Your task to perform on an android device: install app "Upside-Cash back on gas & food" Image 0: 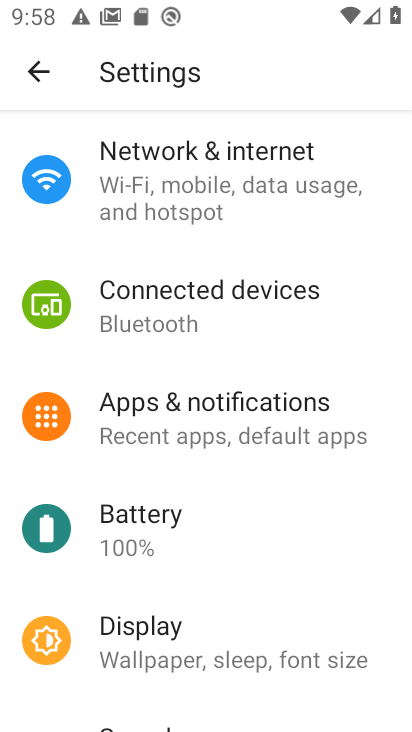
Step 0: press home button
Your task to perform on an android device: install app "Upside-Cash back on gas & food" Image 1: 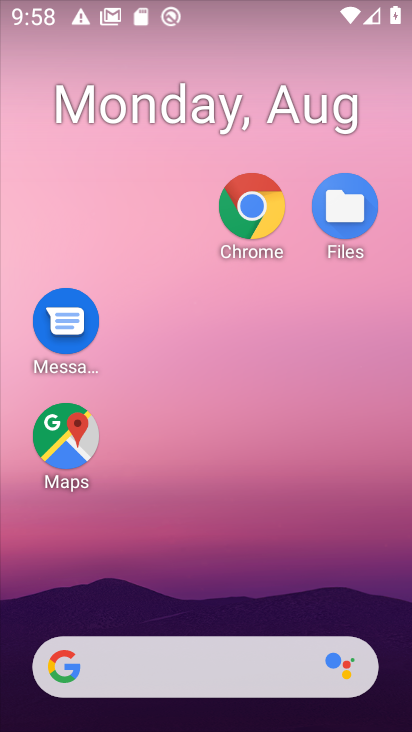
Step 1: drag from (219, 640) to (66, 2)
Your task to perform on an android device: install app "Upside-Cash back on gas & food" Image 2: 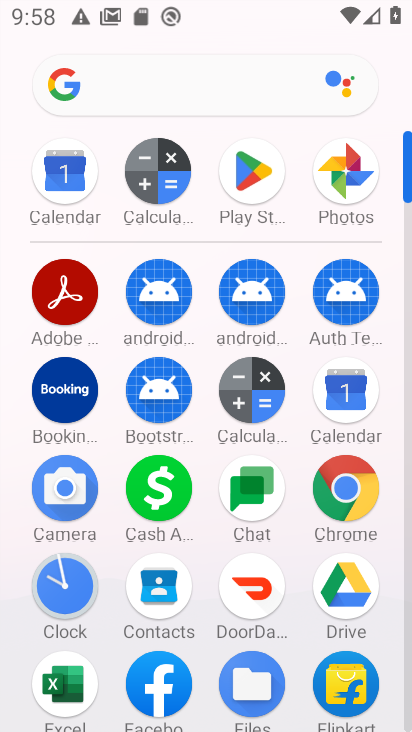
Step 2: click (255, 151)
Your task to perform on an android device: install app "Upside-Cash back on gas & food" Image 3: 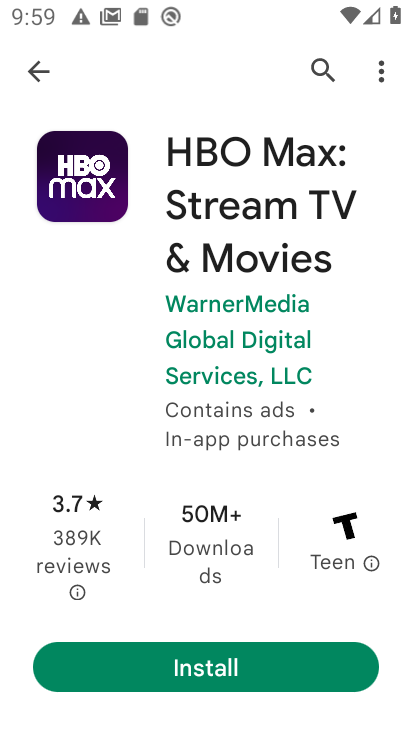
Step 3: click (254, 663)
Your task to perform on an android device: install app "Upside-Cash back on gas & food" Image 4: 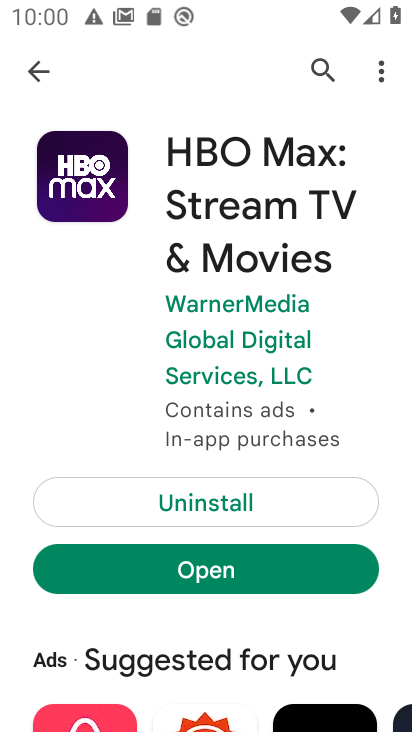
Step 4: press home button
Your task to perform on an android device: install app "Upside-Cash back on gas & food" Image 5: 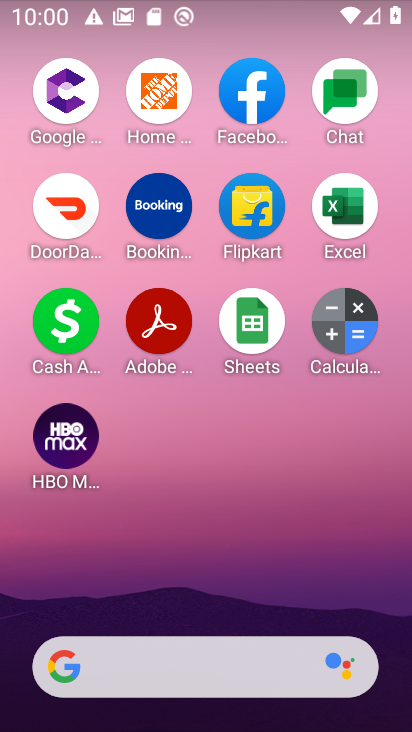
Step 5: drag from (275, 637) to (247, 99)
Your task to perform on an android device: install app "Upside-Cash back on gas & food" Image 6: 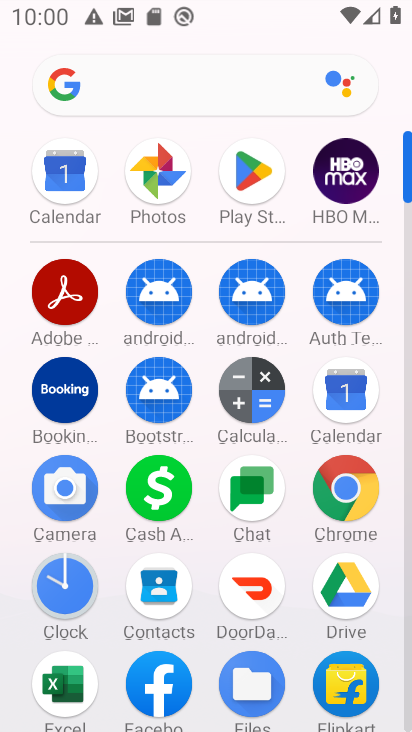
Step 6: click (247, 163)
Your task to perform on an android device: install app "Upside-Cash back on gas & food" Image 7: 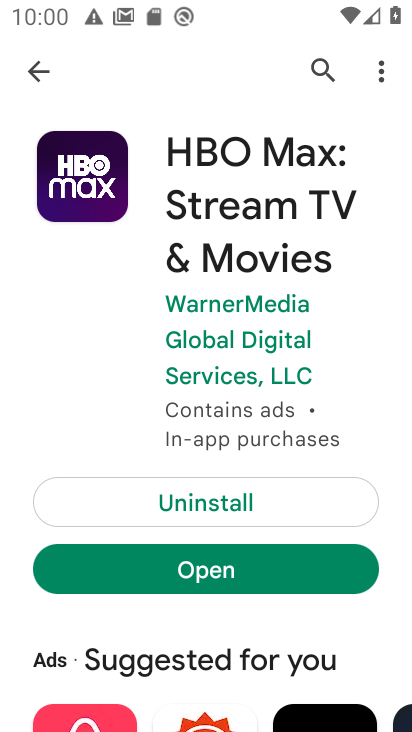
Step 7: click (321, 67)
Your task to perform on an android device: install app "Upside-Cash back on gas & food" Image 8: 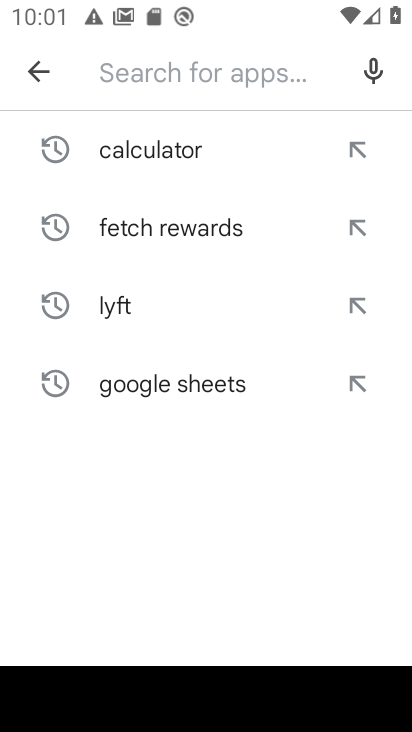
Step 8: type "upside- cashback on gas & food"
Your task to perform on an android device: install app "Upside-Cash back on gas & food" Image 9: 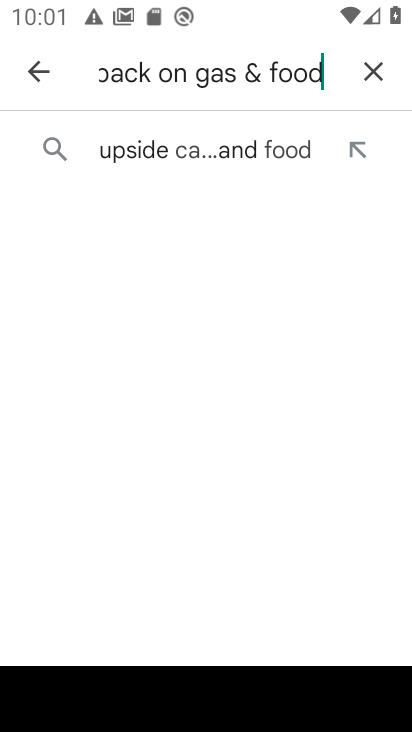
Step 9: click (292, 147)
Your task to perform on an android device: install app "Upside-Cash back on gas & food" Image 10: 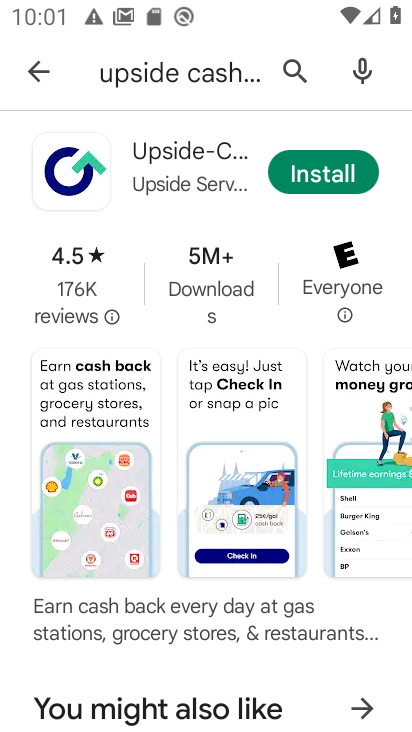
Step 10: click (317, 181)
Your task to perform on an android device: install app "Upside-Cash back on gas & food" Image 11: 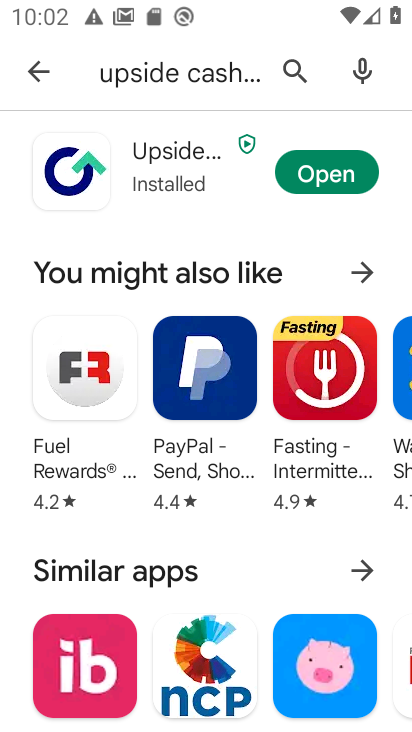
Step 11: task complete